Your task to perform on an android device: open a bookmark in the chrome app Image 0: 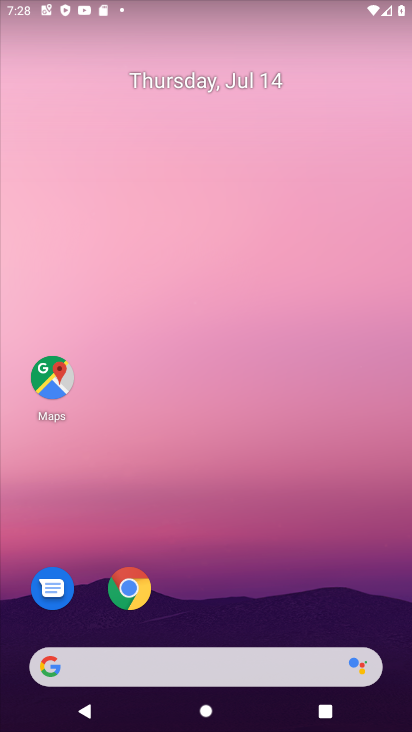
Step 0: drag from (368, 601) to (231, 29)
Your task to perform on an android device: open a bookmark in the chrome app Image 1: 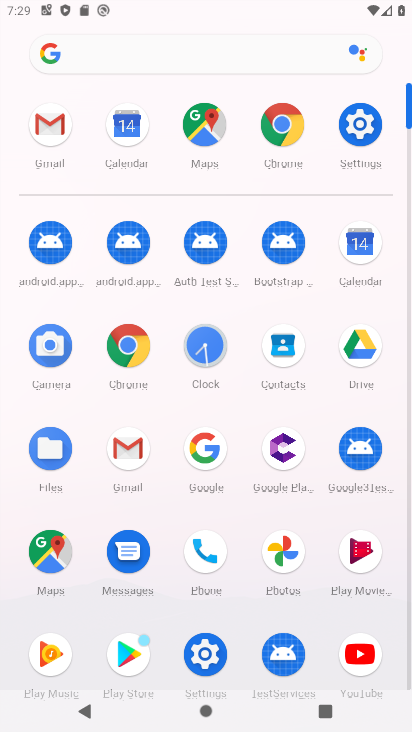
Step 1: click (283, 119)
Your task to perform on an android device: open a bookmark in the chrome app Image 2: 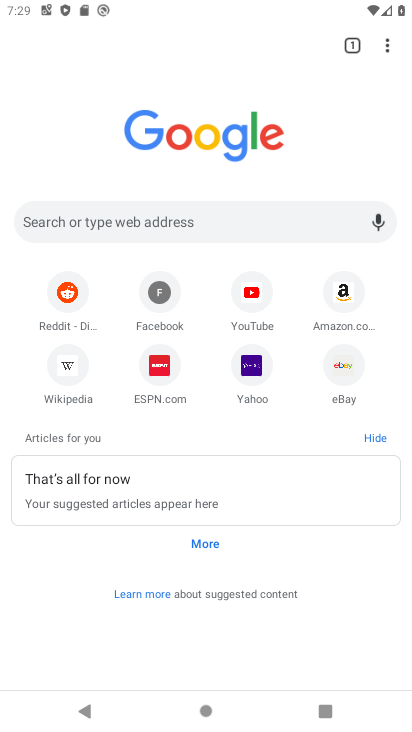
Step 2: click (392, 41)
Your task to perform on an android device: open a bookmark in the chrome app Image 3: 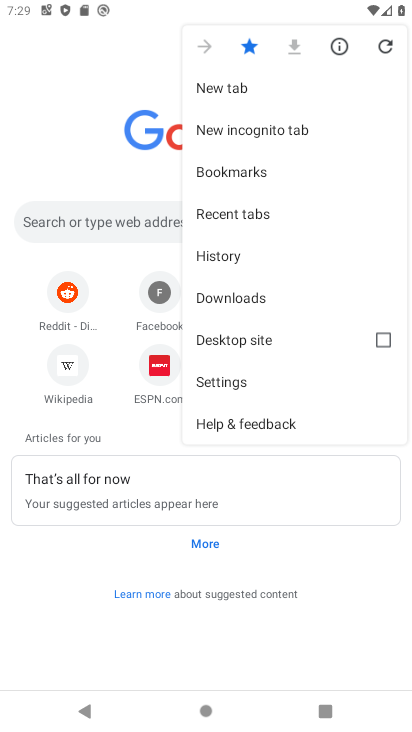
Step 3: click (215, 175)
Your task to perform on an android device: open a bookmark in the chrome app Image 4: 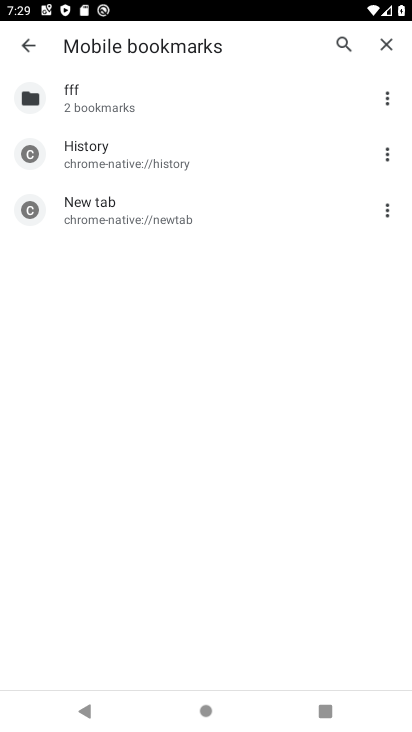
Step 4: task complete